Your task to perform on an android device: Is it going to rain this weekend? Image 0: 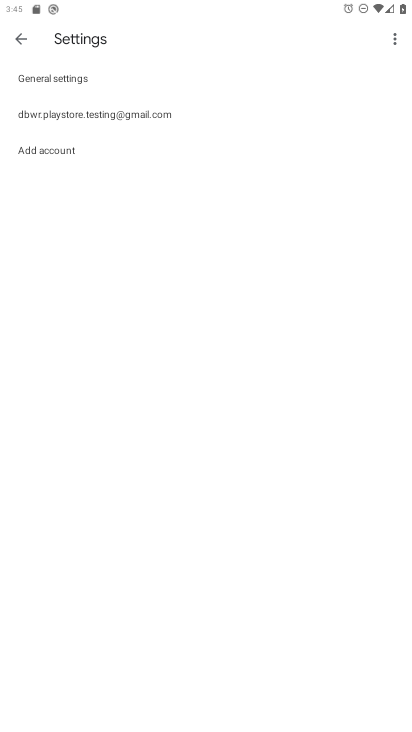
Step 0: press home button
Your task to perform on an android device: Is it going to rain this weekend? Image 1: 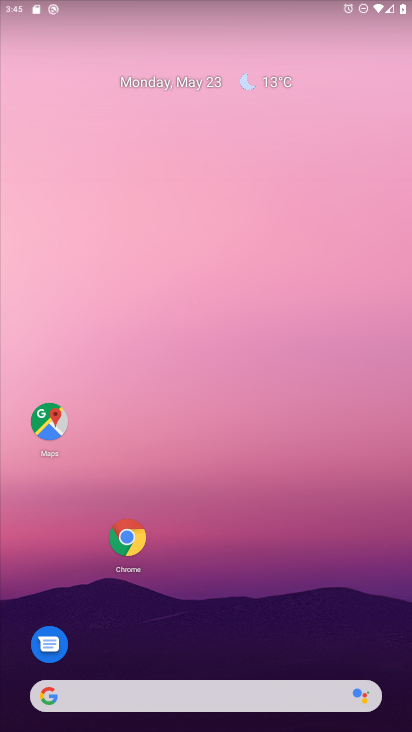
Step 1: click (280, 72)
Your task to perform on an android device: Is it going to rain this weekend? Image 2: 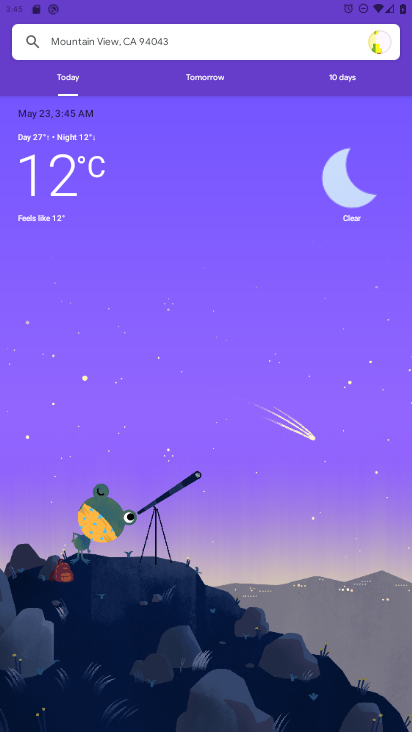
Step 2: click (358, 77)
Your task to perform on an android device: Is it going to rain this weekend? Image 3: 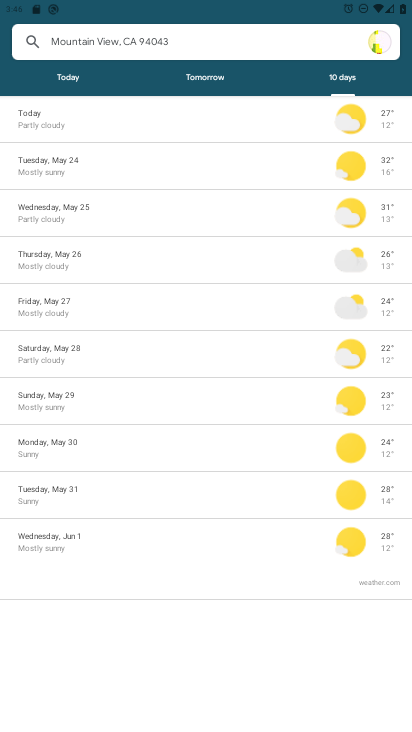
Step 3: task complete